Your task to perform on an android device: clear history in the chrome app Image 0: 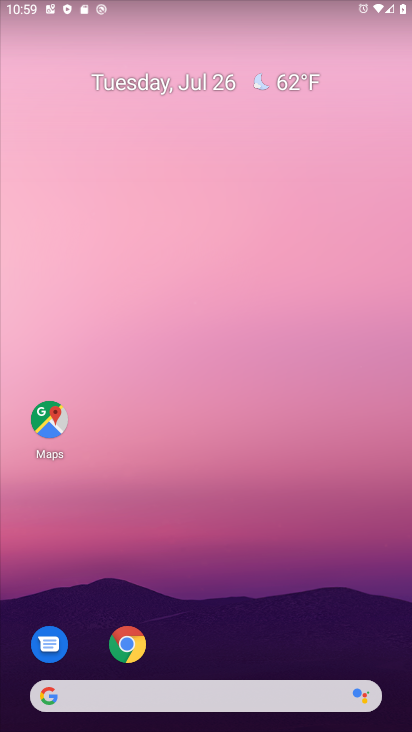
Step 0: click (137, 652)
Your task to perform on an android device: clear history in the chrome app Image 1: 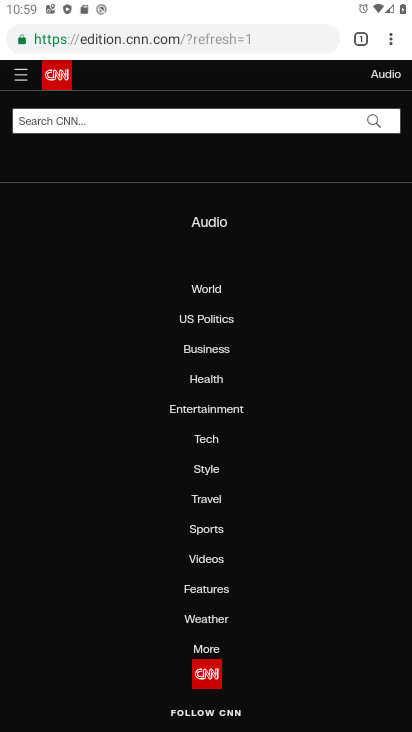
Step 1: click (391, 33)
Your task to perform on an android device: clear history in the chrome app Image 2: 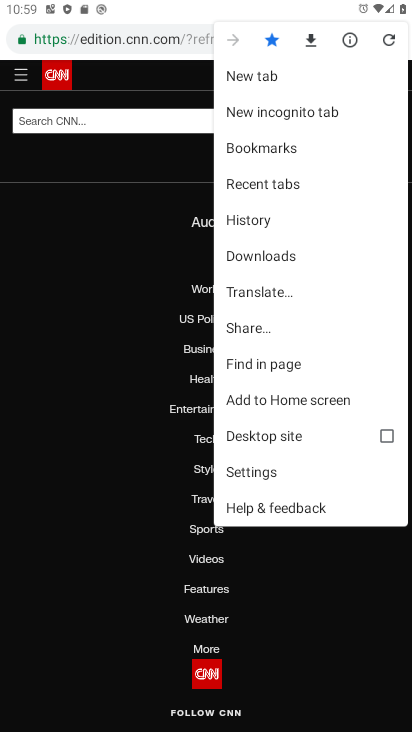
Step 2: click (253, 213)
Your task to perform on an android device: clear history in the chrome app Image 3: 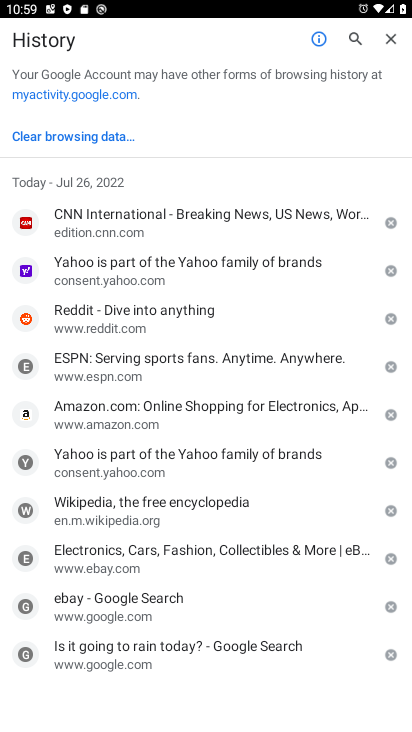
Step 3: click (103, 138)
Your task to perform on an android device: clear history in the chrome app Image 4: 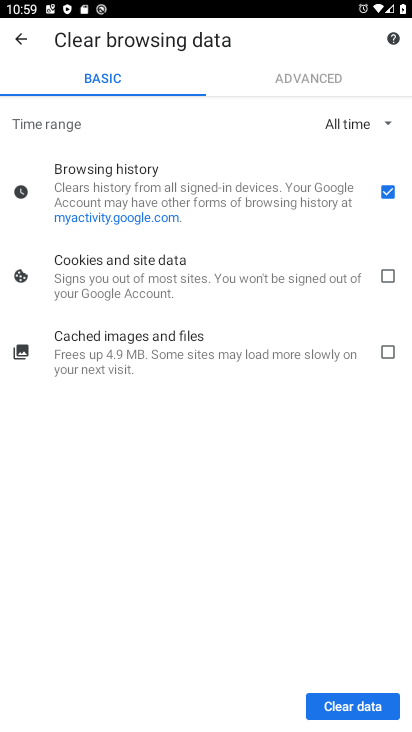
Step 4: click (373, 701)
Your task to perform on an android device: clear history in the chrome app Image 5: 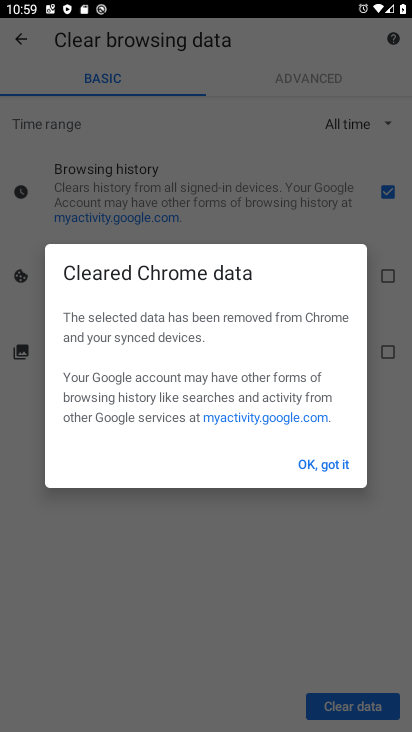
Step 5: click (339, 465)
Your task to perform on an android device: clear history in the chrome app Image 6: 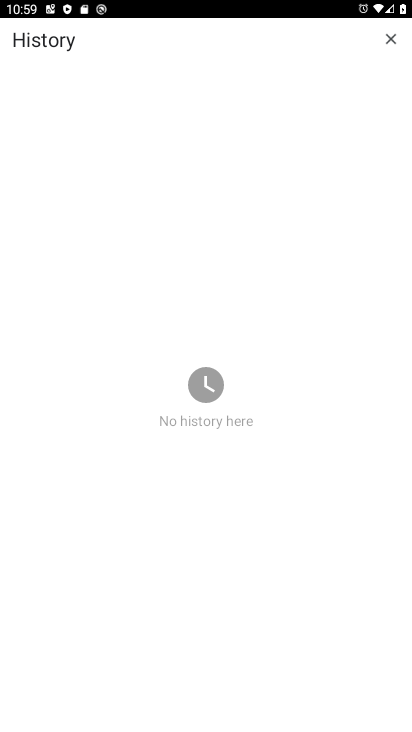
Step 6: task complete